Your task to perform on an android device: Go to calendar. Show me events next week Image 0: 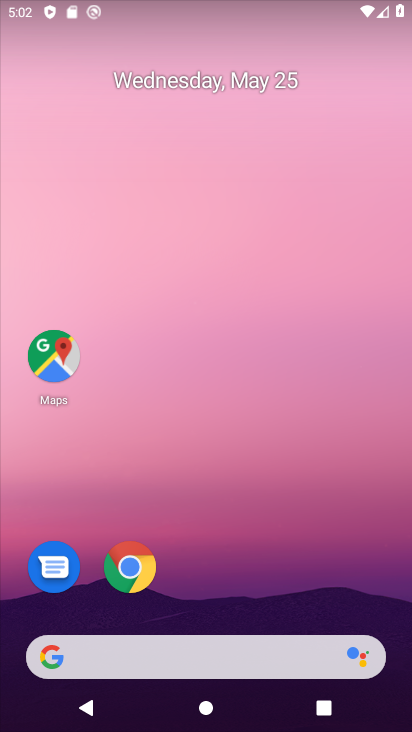
Step 0: click (236, 55)
Your task to perform on an android device: Go to calendar. Show me events next week Image 1: 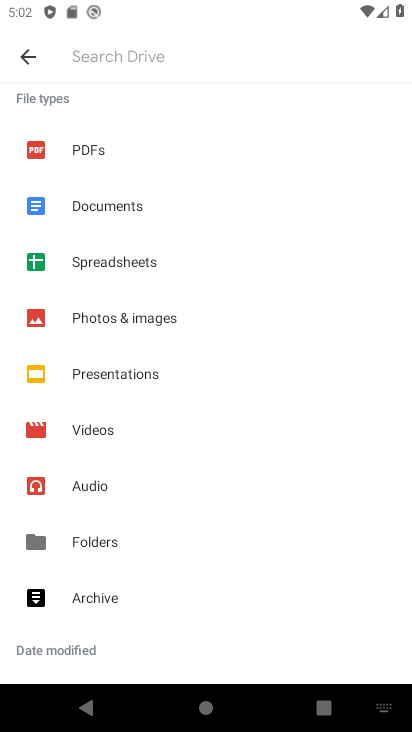
Step 1: press back button
Your task to perform on an android device: Go to calendar. Show me events next week Image 2: 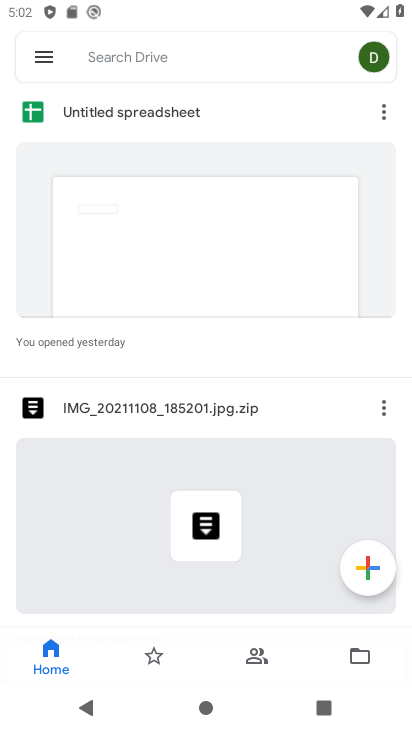
Step 2: press home button
Your task to perform on an android device: Go to calendar. Show me events next week Image 3: 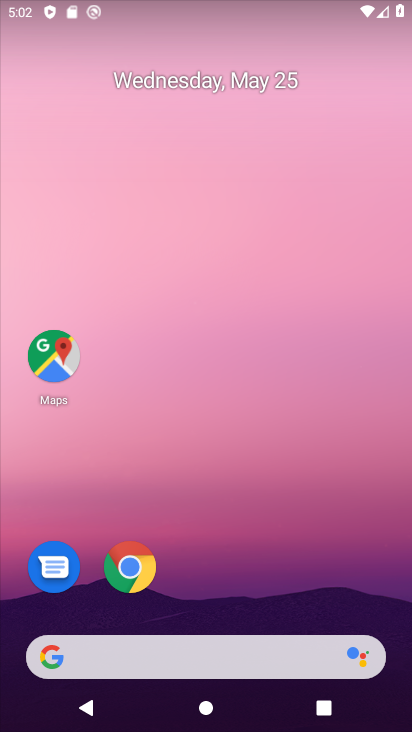
Step 3: drag from (211, 567) to (222, 28)
Your task to perform on an android device: Go to calendar. Show me events next week Image 4: 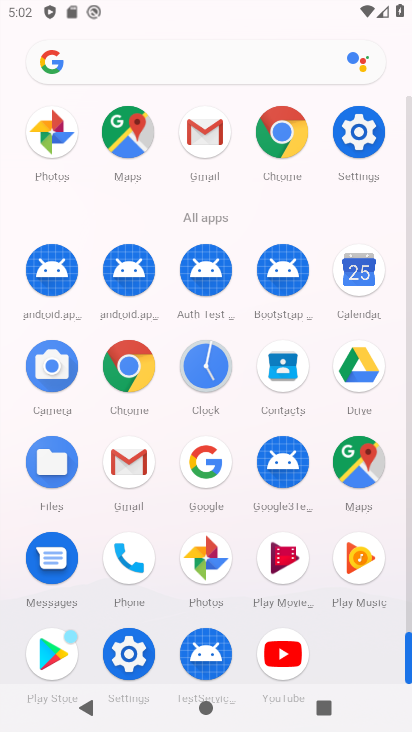
Step 4: click (358, 270)
Your task to perform on an android device: Go to calendar. Show me events next week Image 5: 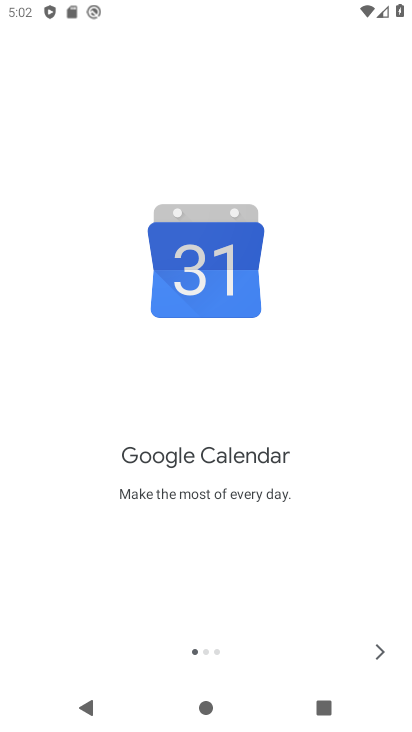
Step 5: click (375, 647)
Your task to perform on an android device: Go to calendar. Show me events next week Image 6: 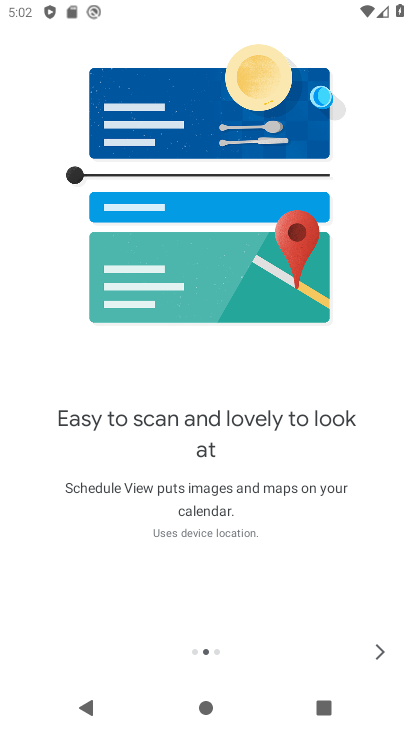
Step 6: click (375, 647)
Your task to perform on an android device: Go to calendar. Show me events next week Image 7: 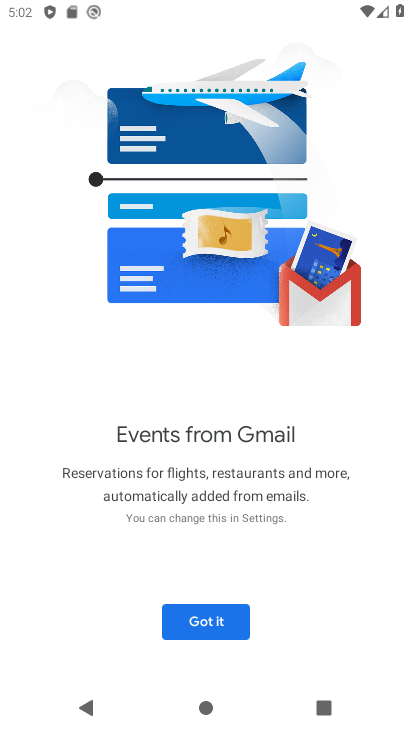
Step 7: click (236, 619)
Your task to perform on an android device: Go to calendar. Show me events next week Image 8: 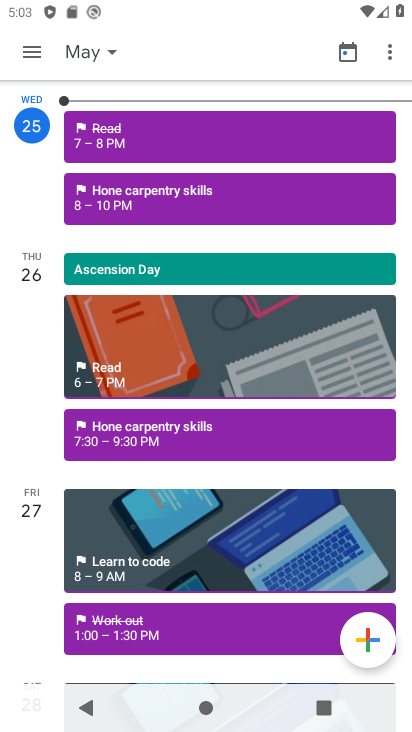
Step 8: click (11, 72)
Your task to perform on an android device: Go to calendar. Show me events next week Image 9: 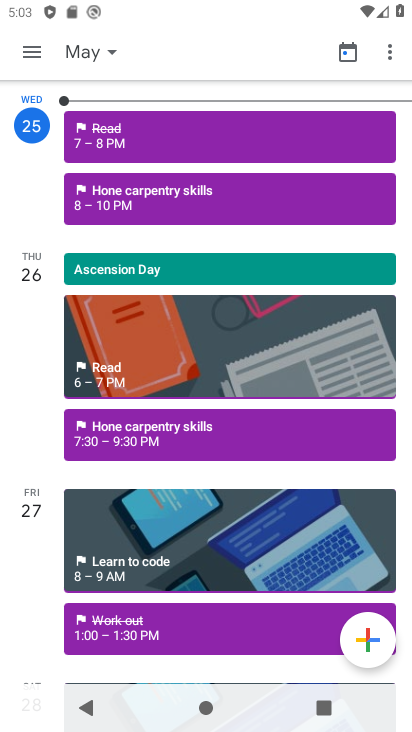
Step 9: click (23, 52)
Your task to perform on an android device: Go to calendar. Show me events next week Image 10: 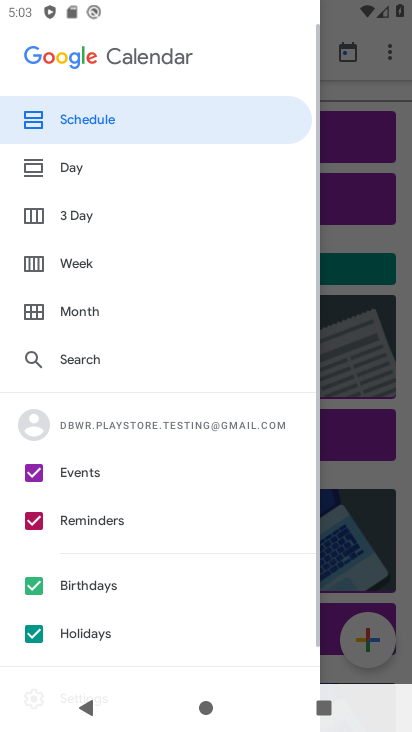
Step 10: click (93, 256)
Your task to perform on an android device: Go to calendar. Show me events next week Image 11: 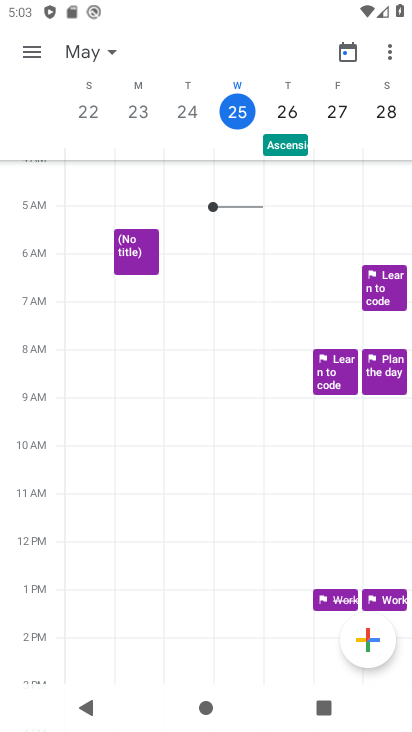
Step 11: task complete